Your task to perform on an android device: change text size in settings app Image 0: 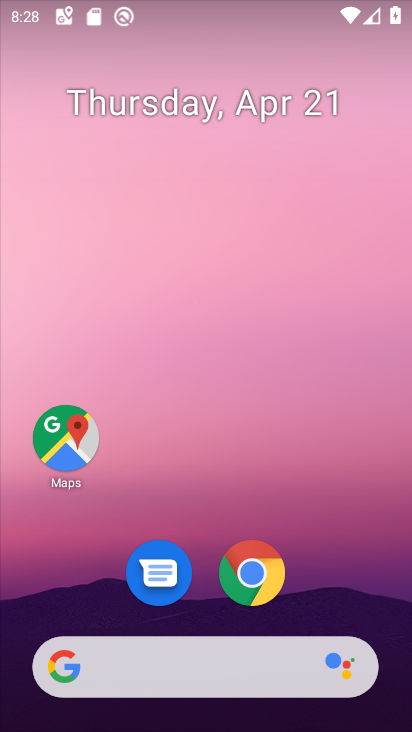
Step 0: drag from (201, 497) to (230, 12)
Your task to perform on an android device: change text size in settings app Image 1: 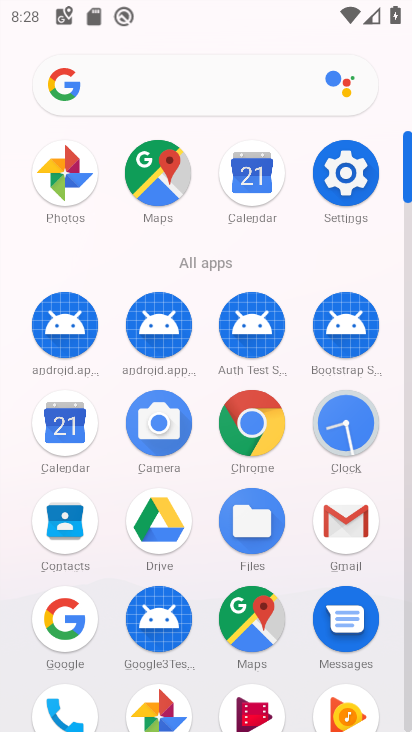
Step 1: click (347, 172)
Your task to perform on an android device: change text size in settings app Image 2: 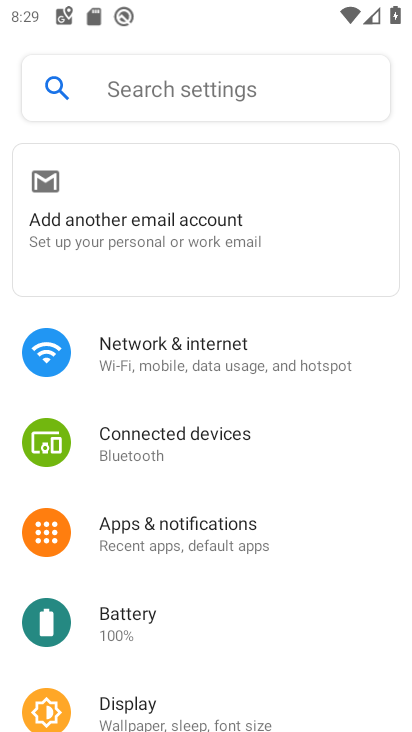
Step 2: drag from (222, 465) to (265, 354)
Your task to perform on an android device: change text size in settings app Image 3: 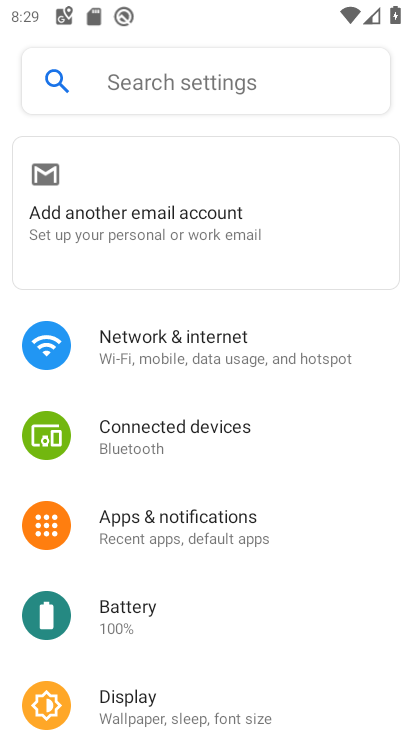
Step 3: drag from (179, 568) to (229, 425)
Your task to perform on an android device: change text size in settings app Image 4: 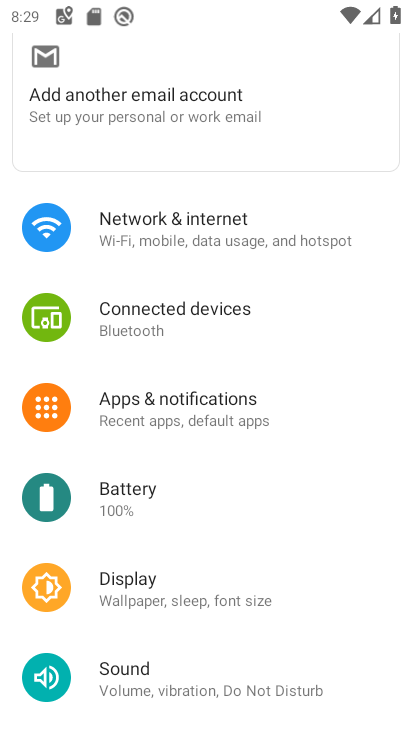
Step 4: drag from (217, 502) to (260, 406)
Your task to perform on an android device: change text size in settings app Image 5: 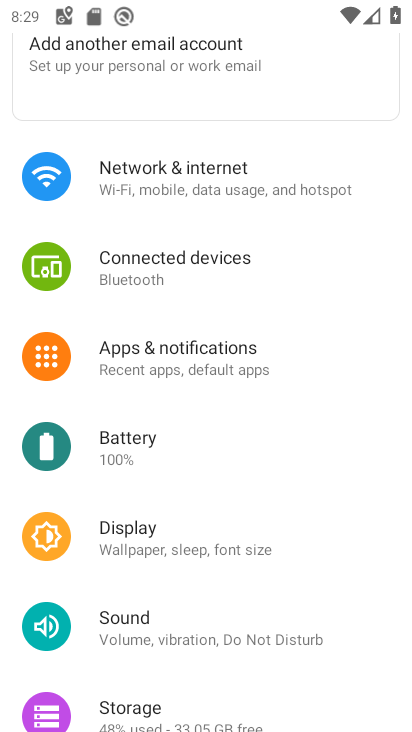
Step 5: drag from (198, 574) to (272, 463)
Your task to perform on an android device: change text size in settings app Image 6: 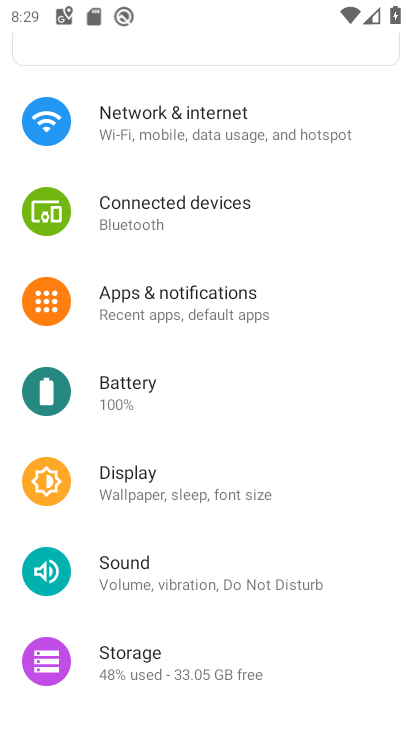
Step 6: drag from (196, 551) to (282, 420)
Your task to perform on an android device: change text size in settings app Image 7: 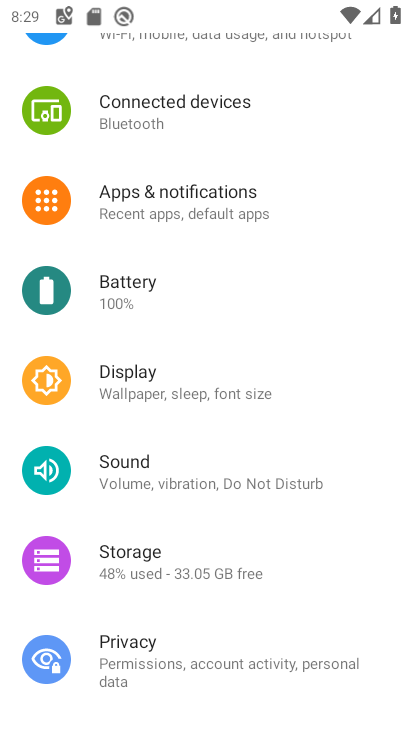
Step 7: drag from (208, 519) to (276, 436)
Your task to perform on an android device: change text size in settings app Image 8: 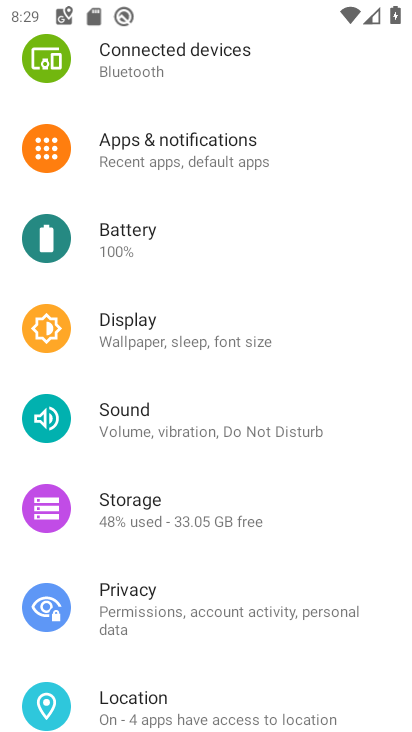
Step 8: drag from (203, 549) to (282, 455)
Your task to perform on an android device: change text size in settings app Image 9: 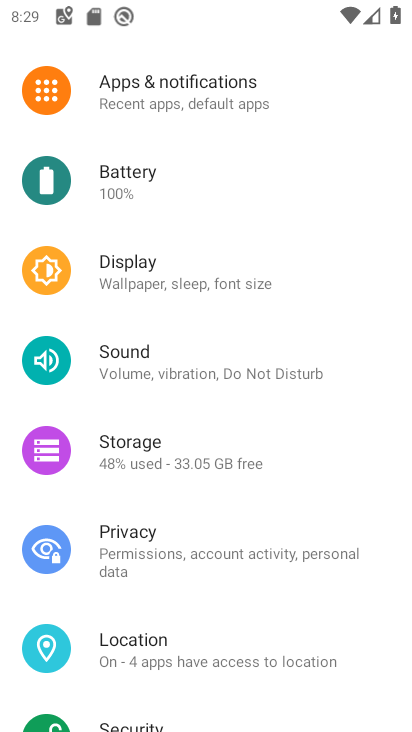
Step 9: drag from (199, 572) to (267, 484)
Your task to perform on an android device: change text size in settings app Image 10: 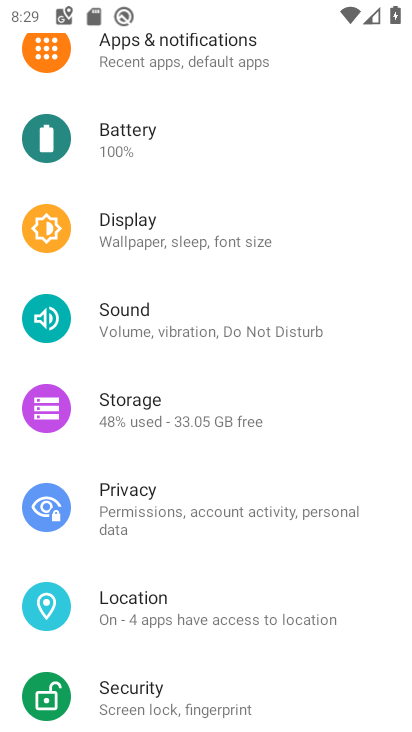
Step 10: drag from (182, 652) to (291, 489)
Your task to perform on an android device: change text size in settings app Image 11: 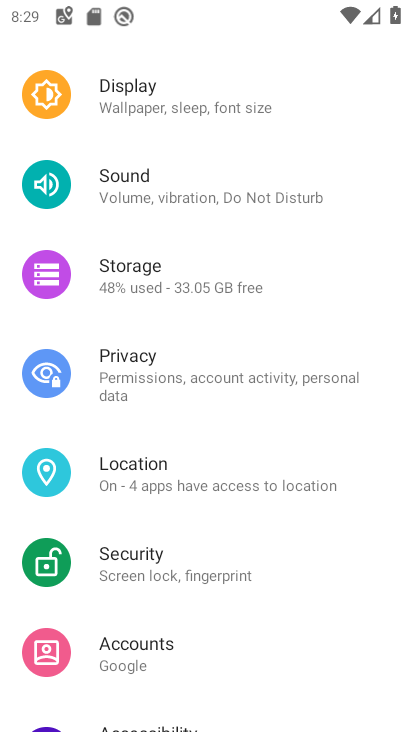
Step 11: drag from (213, 595) to (337, 462)
Your task to perform on an android device: change text size in settings app Image 12: 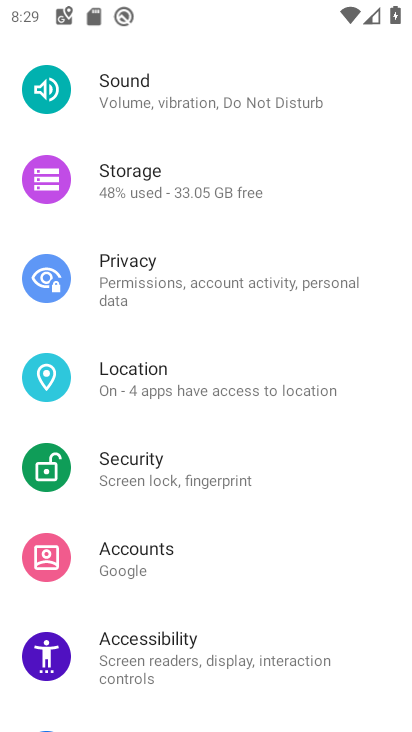
Step 12: click (169, 638)
Your task to perform on an android device: change text size in settings app Image 13: 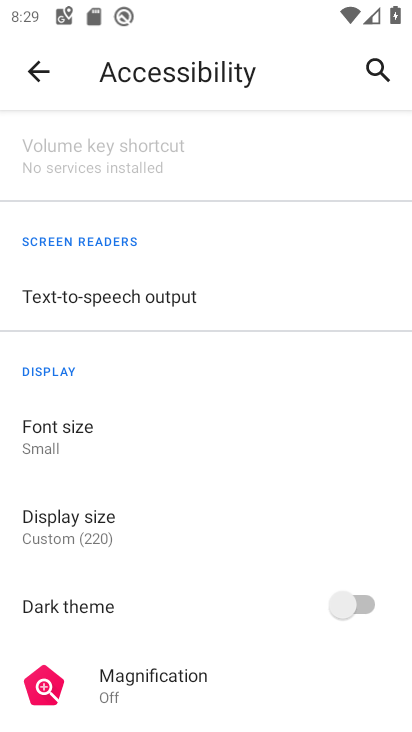
Step 13: click (80, 422)
Your task to perform on an android device: change text size in settings app Image 14: 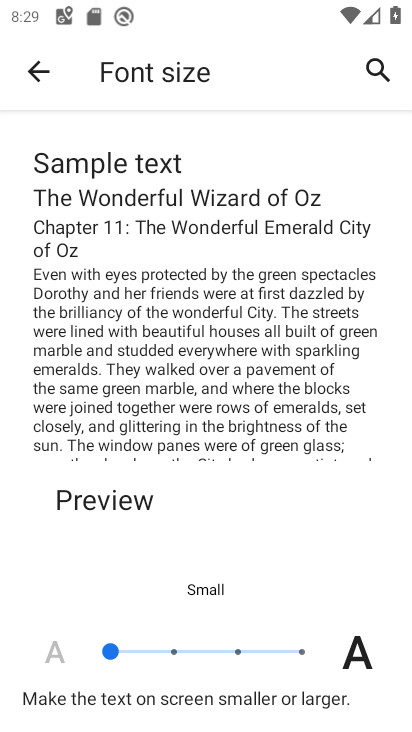
Step 14: click (173, 651)
Your task to perform on an android device: change text size in settings app Image 15: 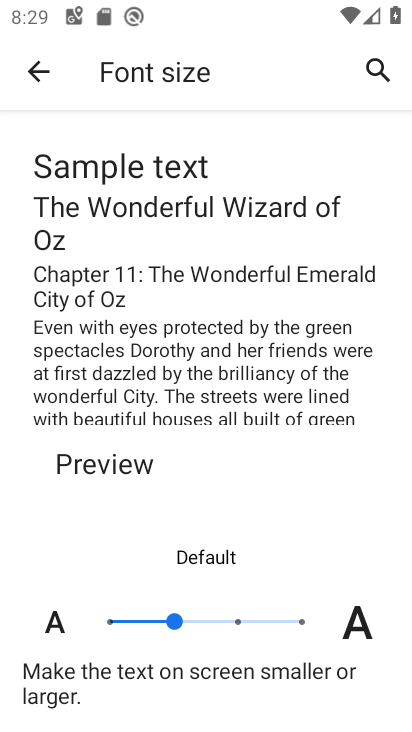
Step 15: task complete